Your task to perform on an android device: find snoozed emails in the gmail app Image 0: 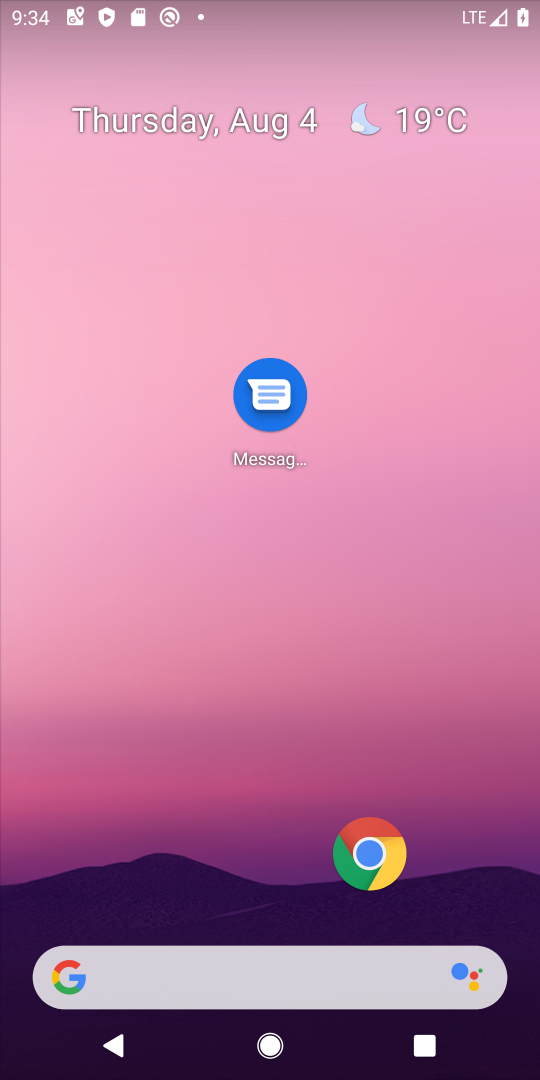
Step 0: drag from (286, 939) to (205, 302)
Your task to perform on an android device: find snoozed emails in the gmail app Image 1: 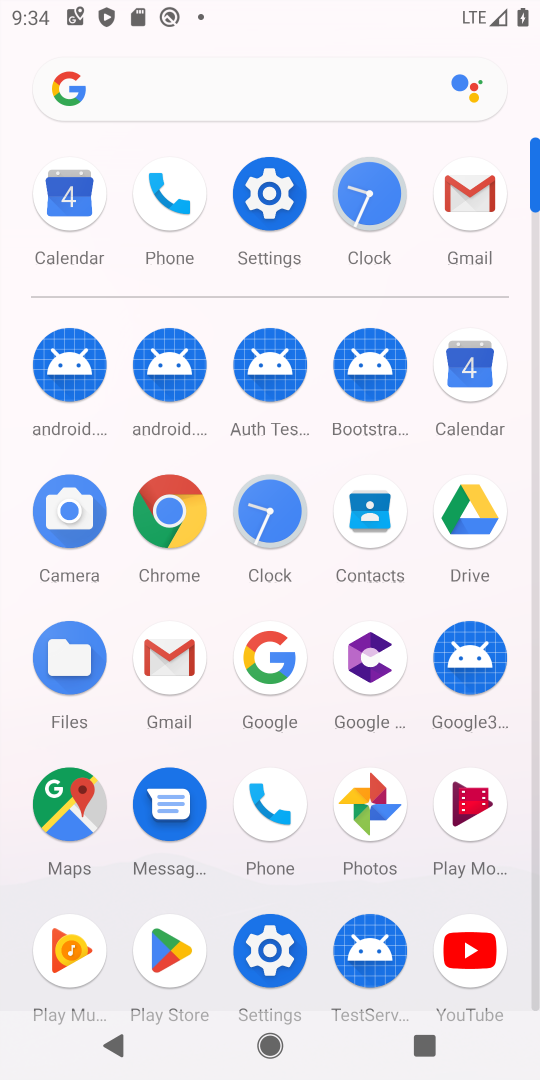
Step 1: click (475, 198)
Your task to perform on an android device: find snoozed emails in the gmail app Image 2: 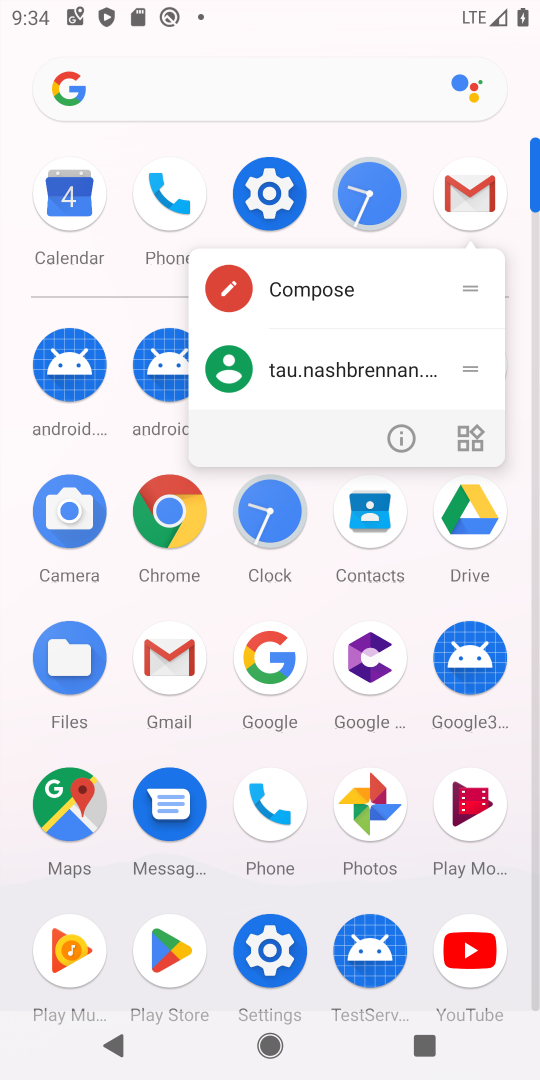
Step 2: click (475, 197)
Your task to perform on an android device: find snoozed emails in the gmail app Image 3: 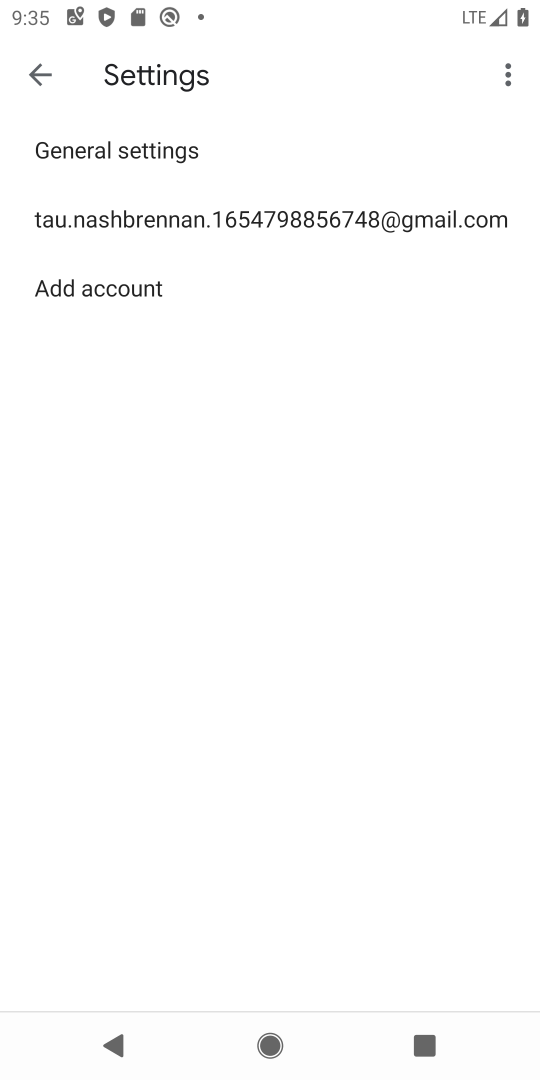
Step 3: click (71, 220)
Your task to perform on an android device: find snoozed emails in the gmail app Image 4: 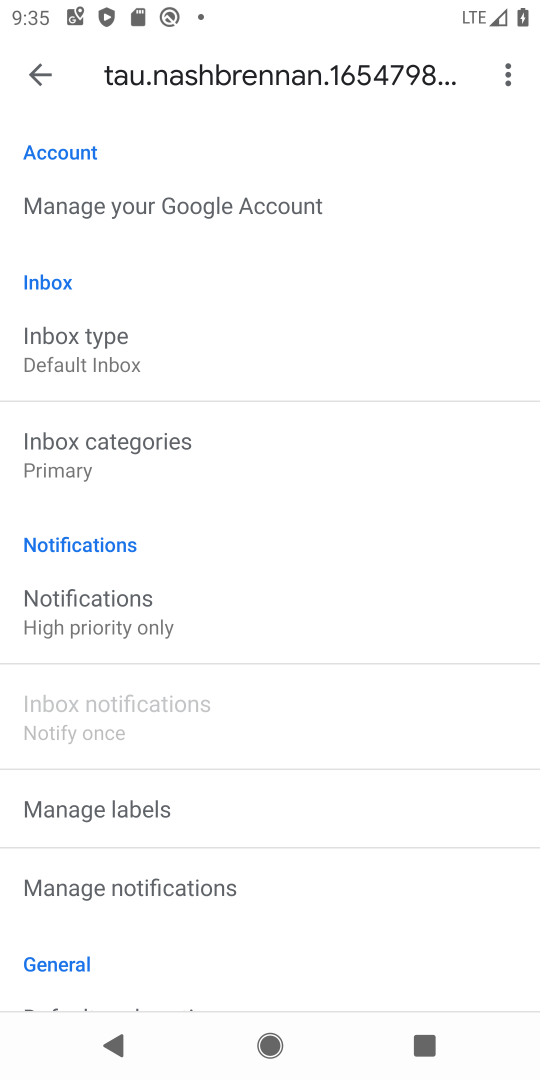
Step 4: click (27, 85)
Your task to perform on an android device: find snoozed emails in the gmail app Image 5: 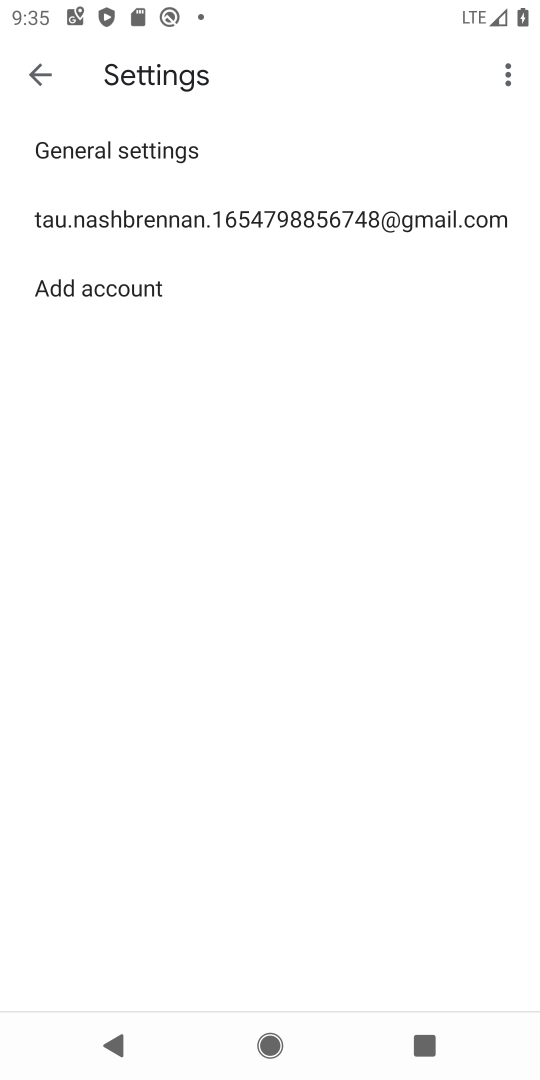
Step 5: click (27, 85)
Your task to perform on an android device: find snoozed emails in the gmail app Image 6: 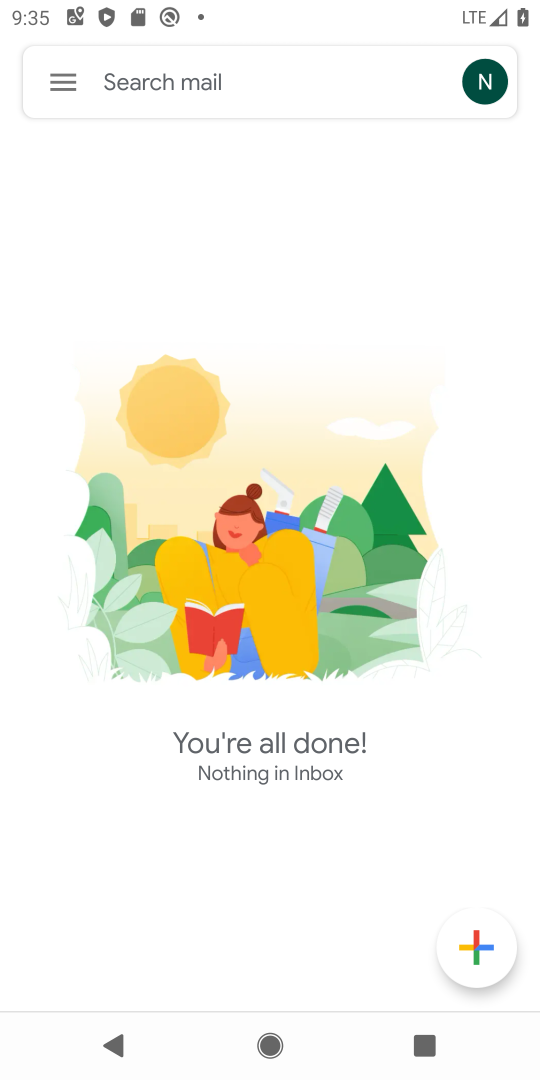
Step 6: click (64, 77)
Your task to perform on an android device: find snoozed emails in the gmail app Image 7: 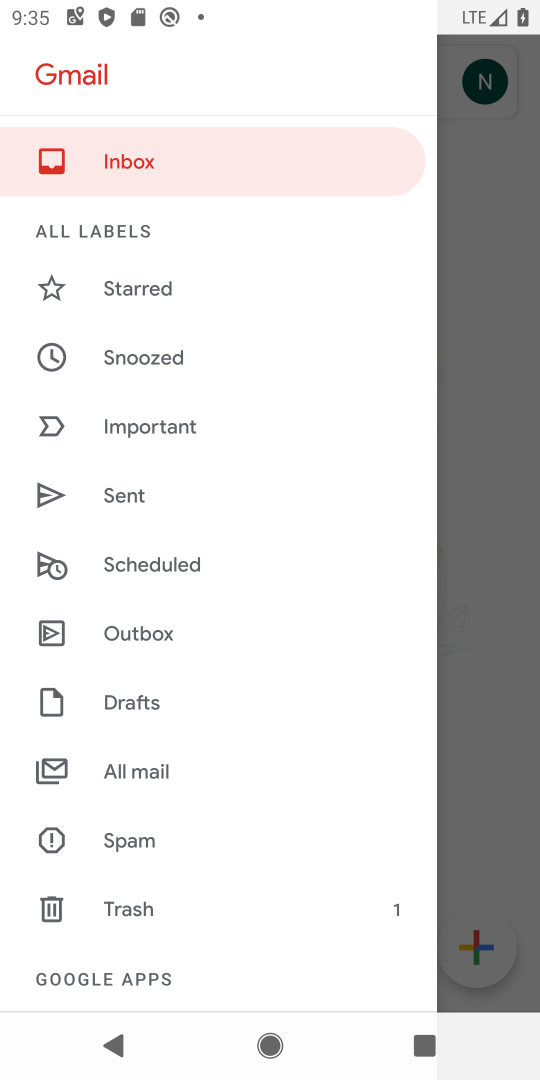
Step 7: click (129, 359)
Your task to perform on an android device: find snoozed emails in the gmail app Image 8: 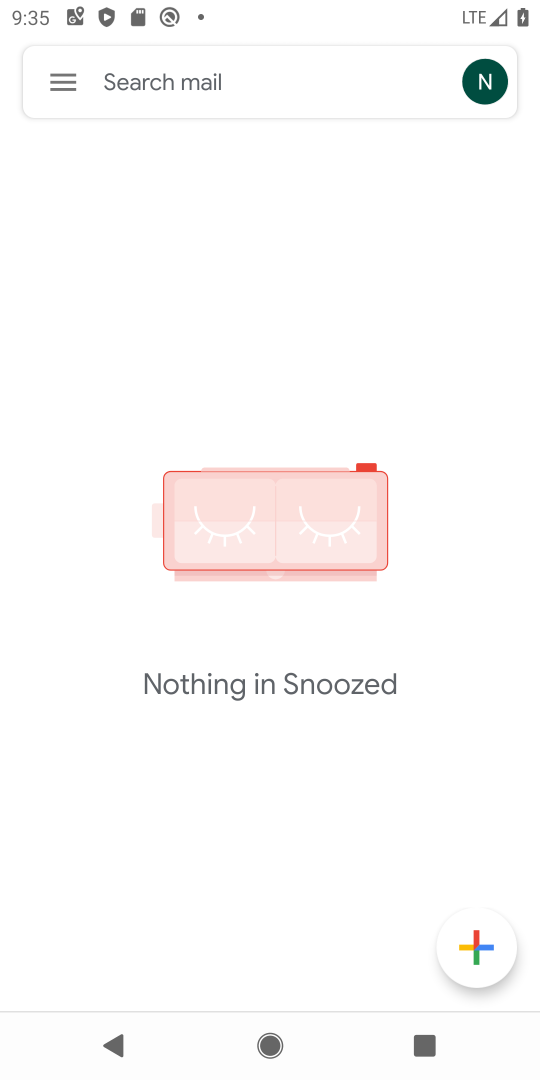
Step 8: task complete